Your task to perform on an android device: delete browsing data in the chrome app Image 0: 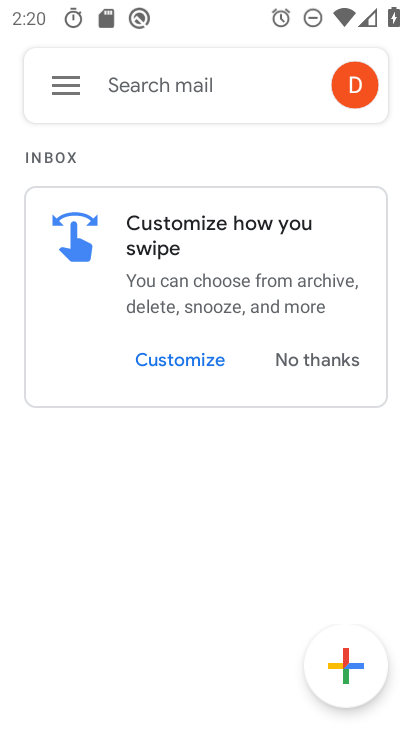
Step 0: click (67, 83)
Your task to perform on an android device: delete browsing data in the chrome app Image 1: 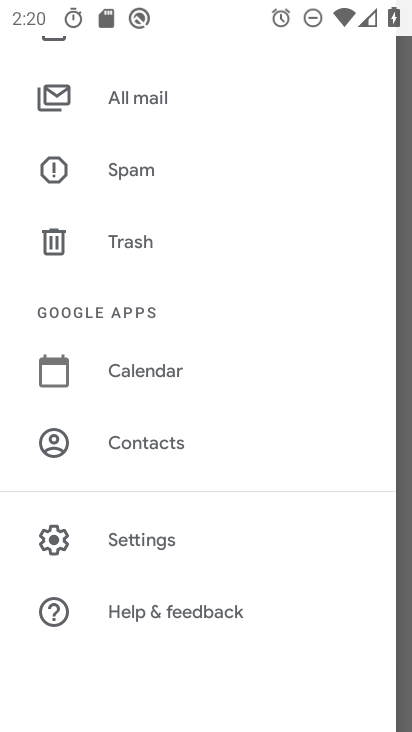
Step 1: drag from (266, 131) to (308, 586)
Your task to perform on an android device: delete browsing data in the chrome app Image 2: 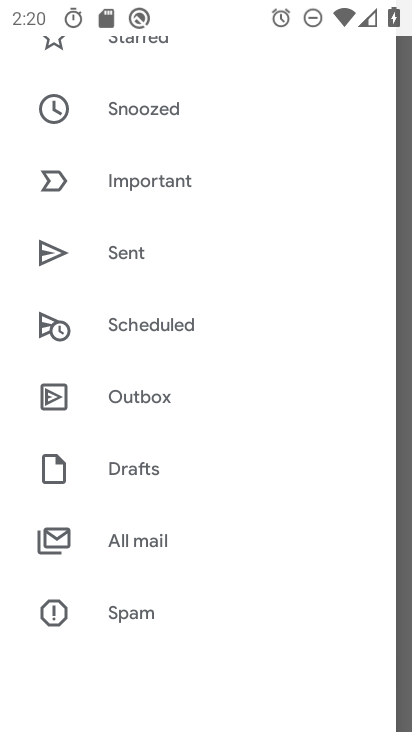
Step 2: drag from (317, 129) to (366, 566)
Your task to perform on an android device: delete browsing data in the chrome app Image 3: 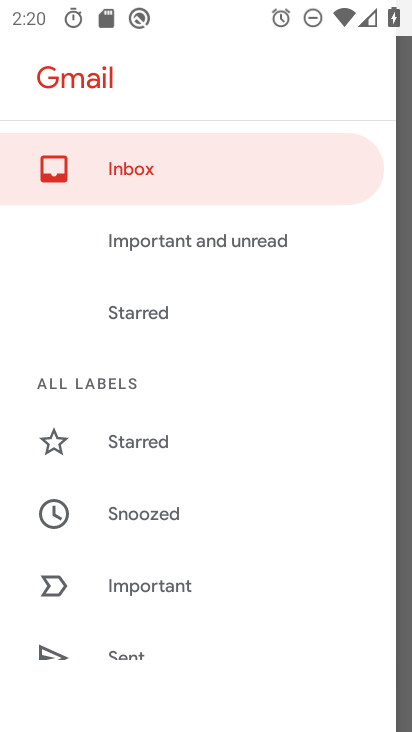
Step 3: press home button
Your task to perform on an android device: delete browsing data in the chrome app Image 4: 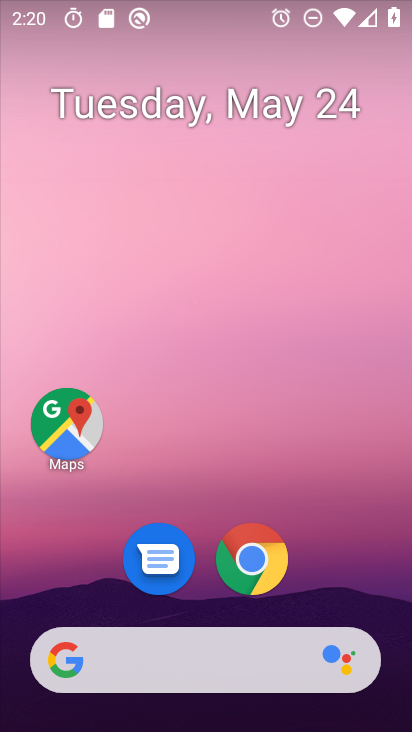
Step 4: click (257, 562)
Your task to perform on an android device: delete browsing data in the chrome app Image 5: 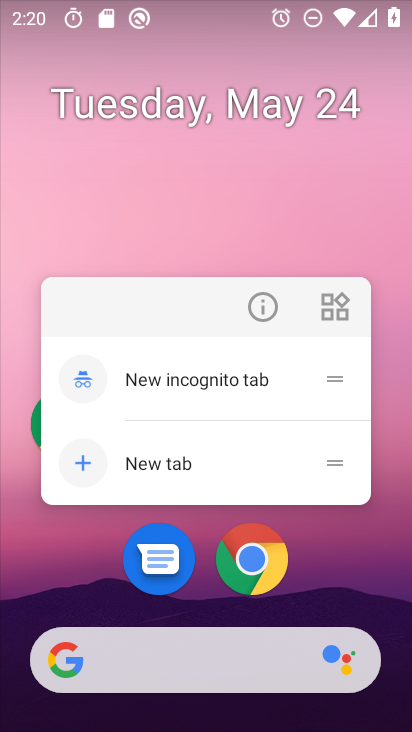
Step 5: click (252, 551)
Your task to perform on an android device: delete browsing data in the chrome app Image 6: 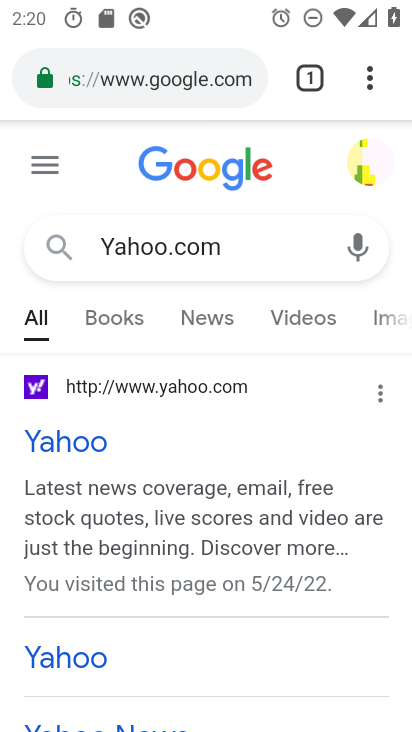
Step 6: click (368, 74)
Your task to perform on an android device: delete browsing data in the chrome app Image 7: 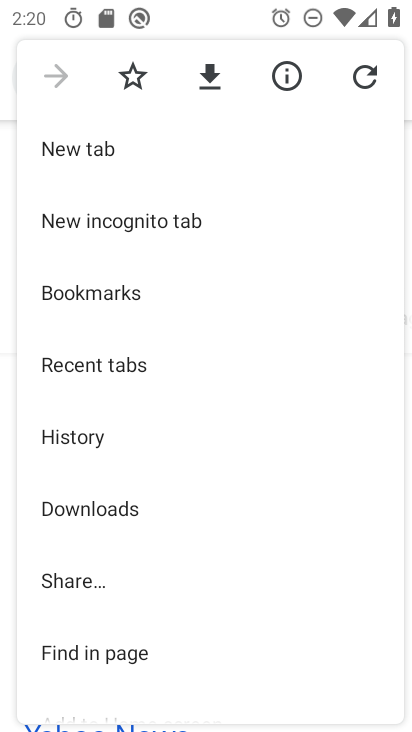
Step 7: drag from (229, 636) to (245, 256)
Your task to perform on an android device: delete browsing data in the chrome app Image 8: 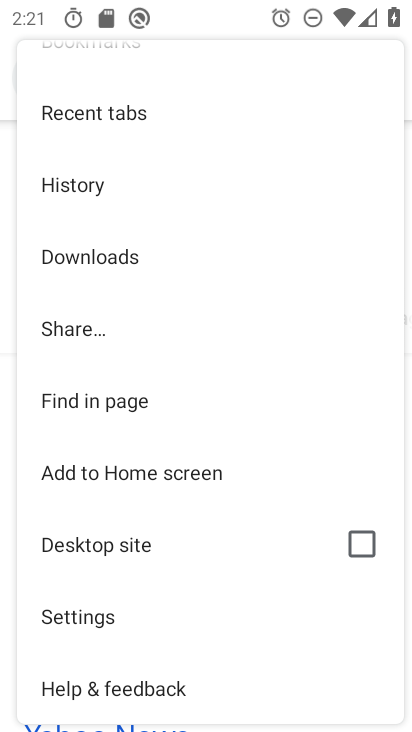
Step 8: click (92, 186)
Your task to perform on an android device: delete browsing data in the chrome app Image 9: 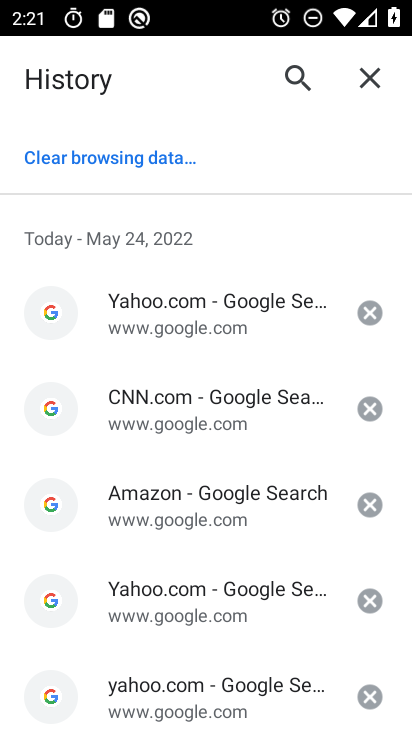
Step 9: click (133, 152)
Your task to perform on an android device: delete browsing data in the chrome app Image 10: 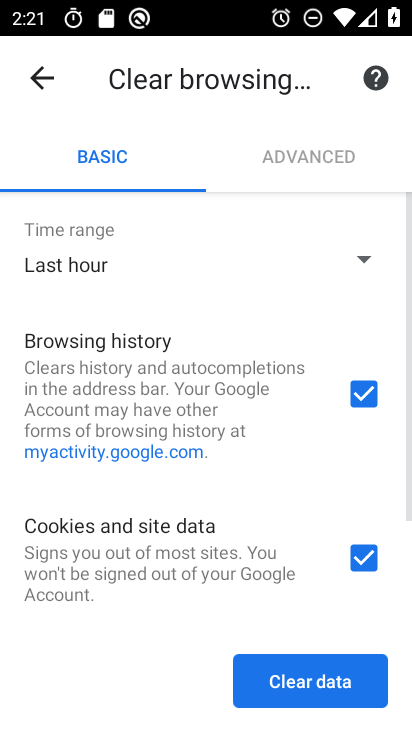
Step 10: click (287, 669)
Your task to perform on an android device: delete browsing data in the chrome app Image 11: 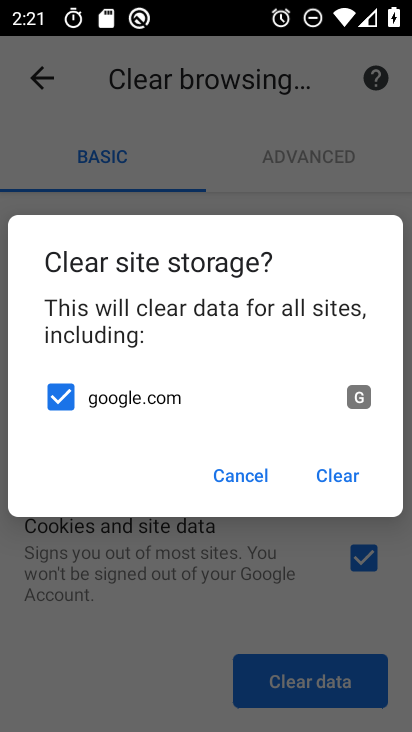
Step 11: click (343, 482)
Your task to perform on an android device: delete browsing data in the chrome app Image 12: 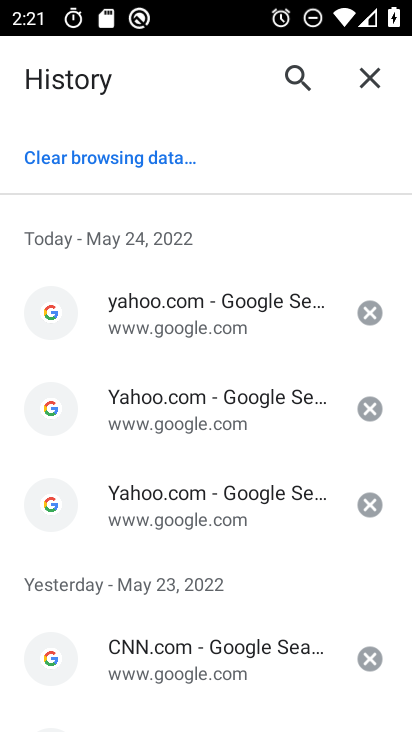
Step 12: click (154, 157)
Your task to perform on an android device: delete browsing data in the chrome app Image 13: 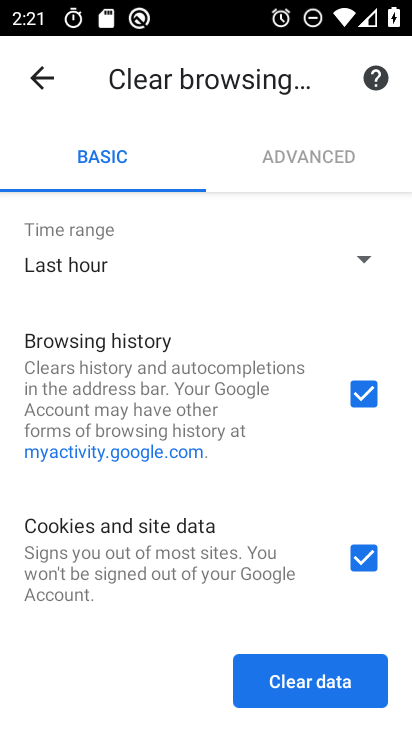
Step 13: click (300, 688)
Your task to perform on an android device: delete browsing data in the chrome app Image 14: 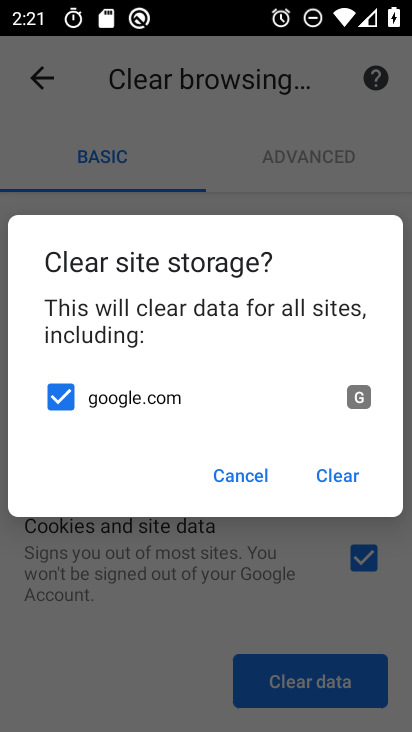
Step 14: click (328, 471)
Your task to perform on an android device: delete browsing data in the chrome app Image 15: 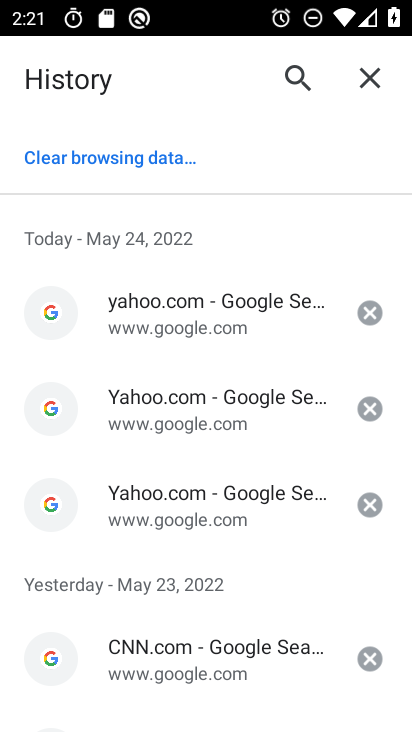
Step 15: click (368, 315)
Your task to perform on an android device: delete browsing data in the chrome app Image 16: 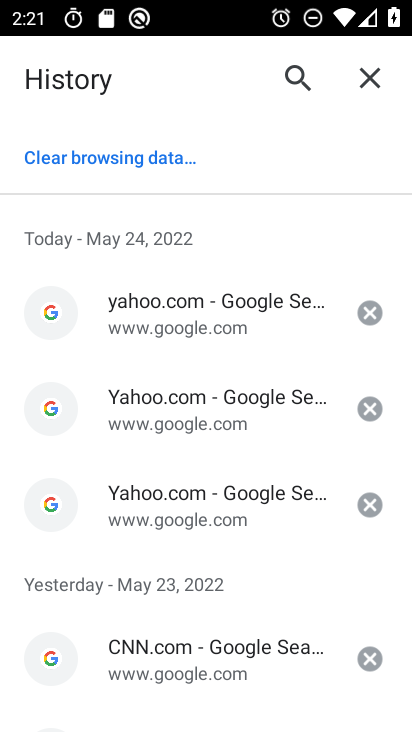
Step 16: click (368, 315)
Your task to perform on an android device: delete browsing data in the chrome app Image 17: 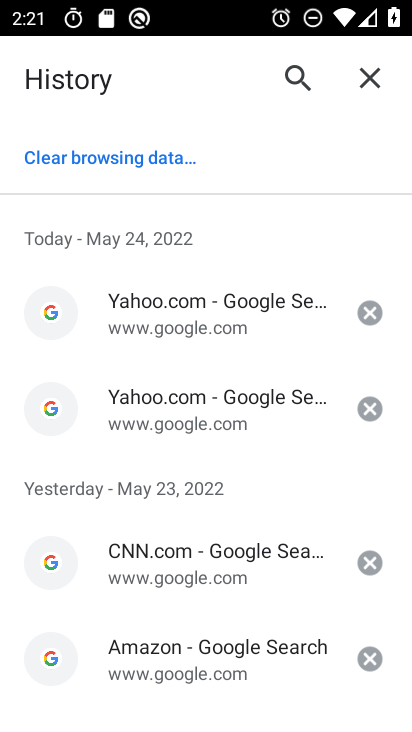
Step 17: click (368, 315)
Your task to perform on an android device: delete browsing data in the chrome app Image 18: 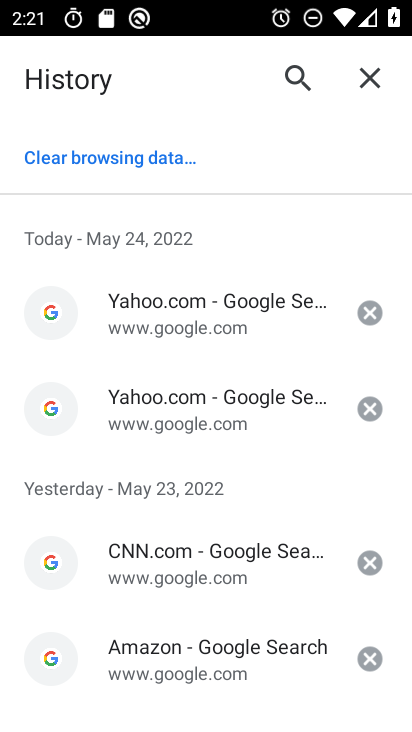
Step 18: click (368, 315)
Your task to perform on an android device: delete browsing data in the chrome app Image 19: 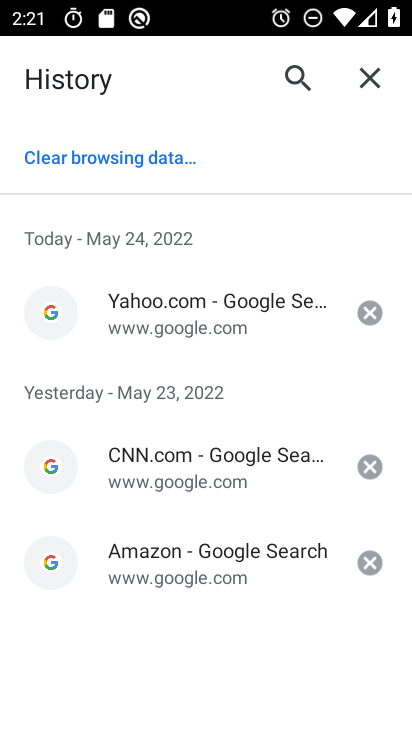
Step 19: click (368, 315)
Your task to perform on an android device: delete browsing data in the chrome app Image 20: 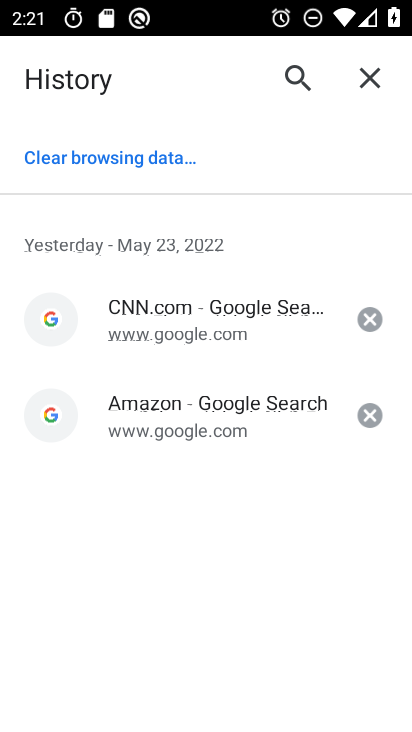
Step 20: click (368, 315)
Your task to perform on an android device: delete browsing data in the chrome app Image 21: 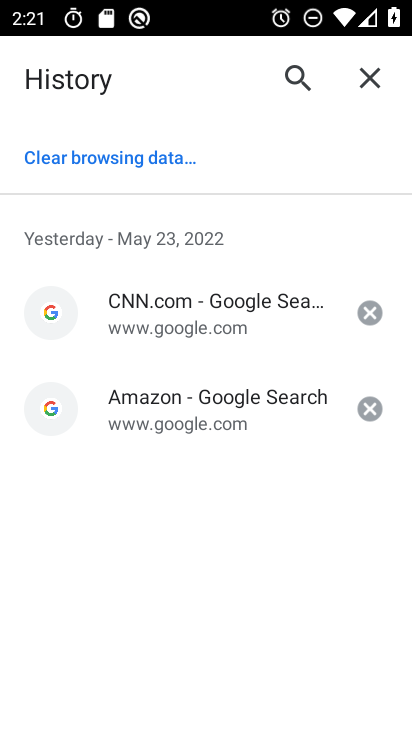
Step 21: click (368, 315)
Your task to perform on an android device: delete browsing data in the chrome app Image 22: 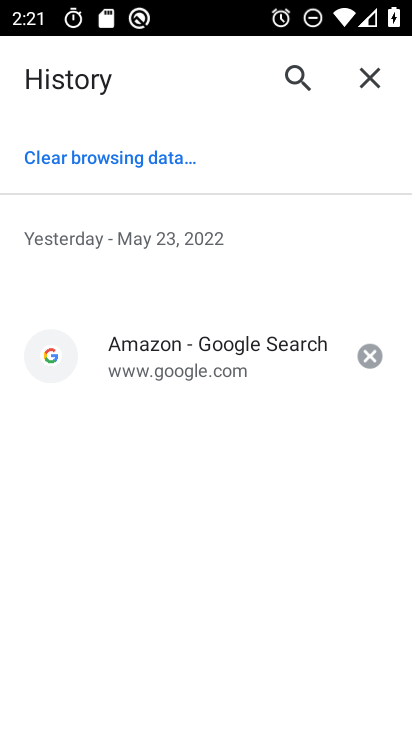
Step 22: click (368, 315)
Your task to perform on an android device: delete browsing data in the chrome app Image 23: 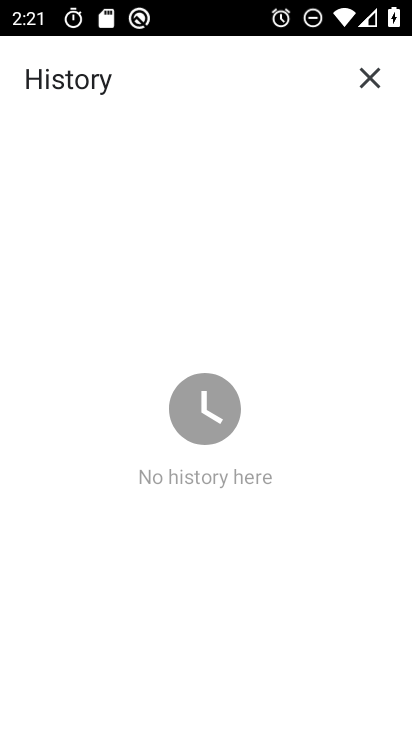
Step 23: click (368, 315)
Your task to perform on an android device: delete browsing data in the chrome app Image 24: 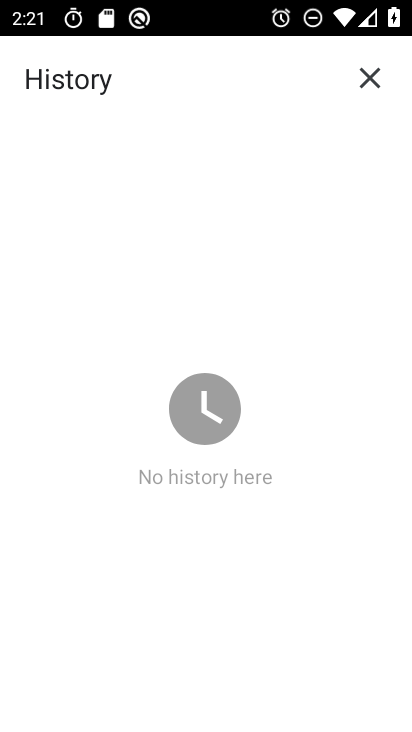
Step 24: task complete